Your task to perform on an android device: open a bookmark in the chrome app Image 0: 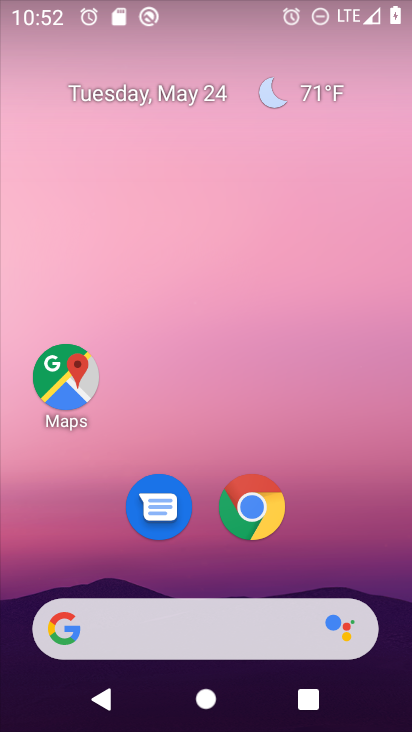
Step 0: click (249, 505)
Your task to perform on an android device: open a bookmark in the chrome app Image 1: 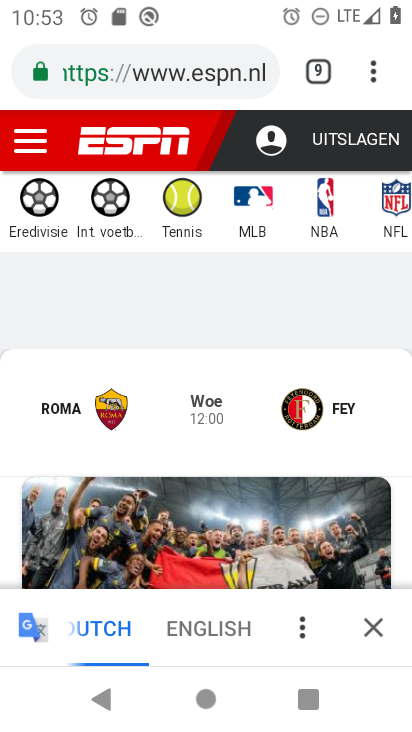
Step 1: click (372, 77)
Your task to perform on an android device: open a bookmark in the chrome app Image 2: 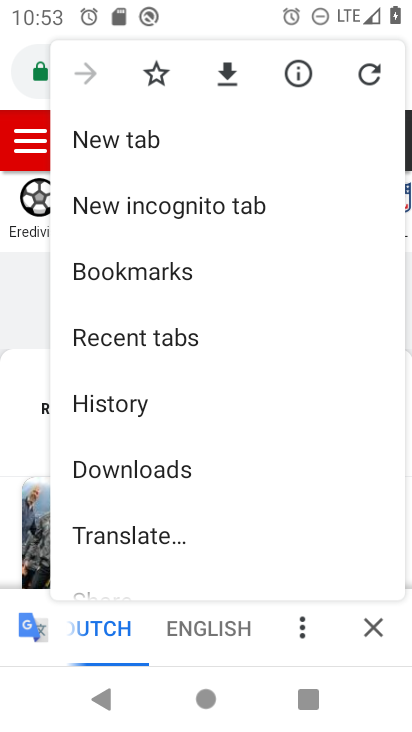
Step 2: click (154, 267)
Your task to perform on an android device: open a bookmark in the chrome app Image 3: 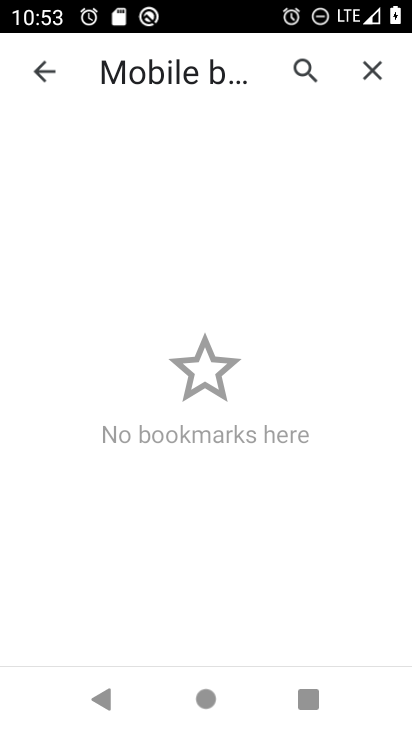
Step 3: task complete